Your task to perform on an android device: Open Reddit.com Image 0: 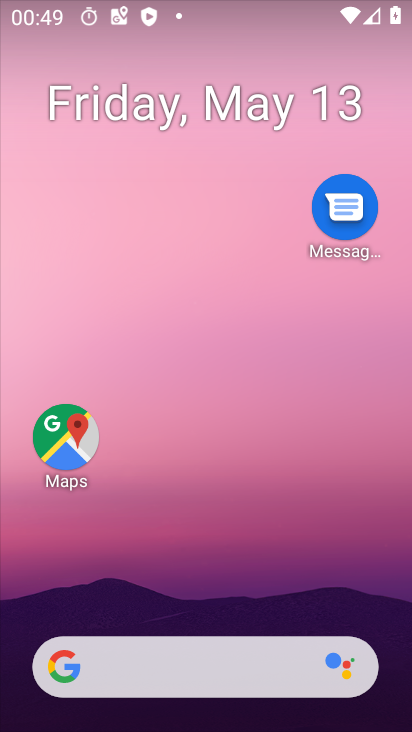
Step 0: drag from (266, 515) to (290, 13)
Your task to perform on an android device: Open Reddit.com Image 1: 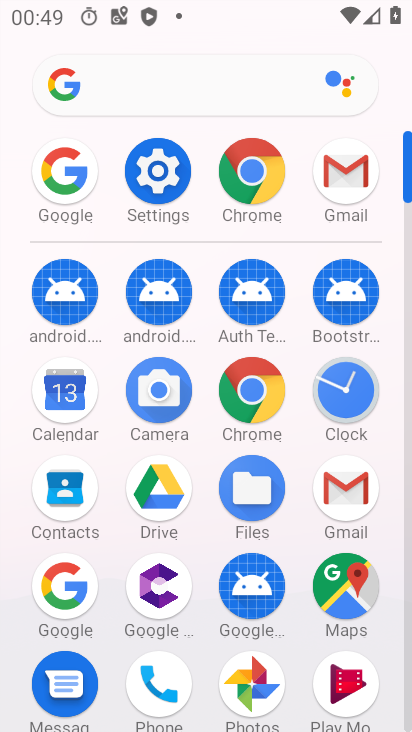
Step 1: click (249, 179)
Your task to perform on an android device: Open Reddit.com Image 2: 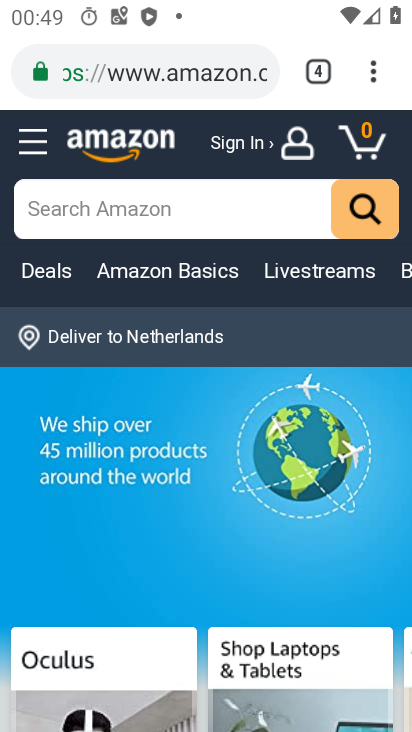
Step 2: click (166, 71)
Your task to perform on an android device: Open Reddit.com Image 3: 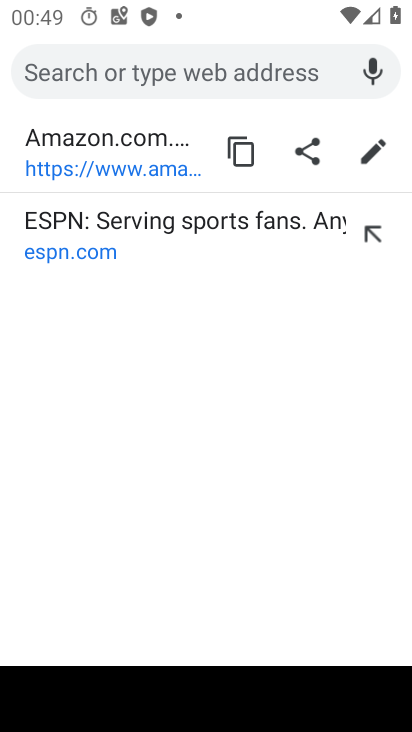
Step 3: type "Reddit.com"
Your task to perform on an android device: Open Reddit.com Image 4: 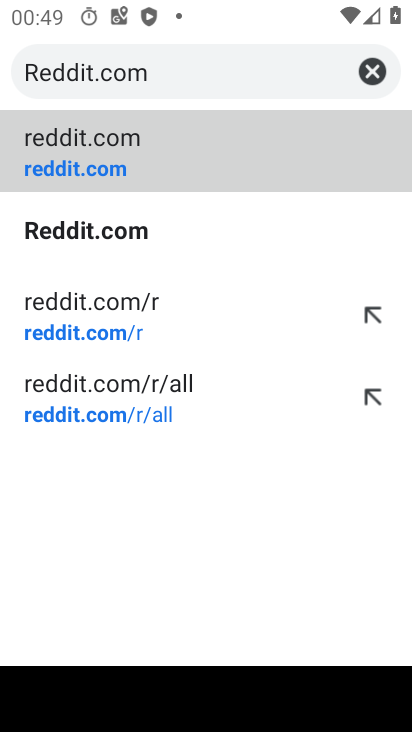
Step 4: click (32, 158)
Your task to perform on an android device: Open Reddit.com Image 5: 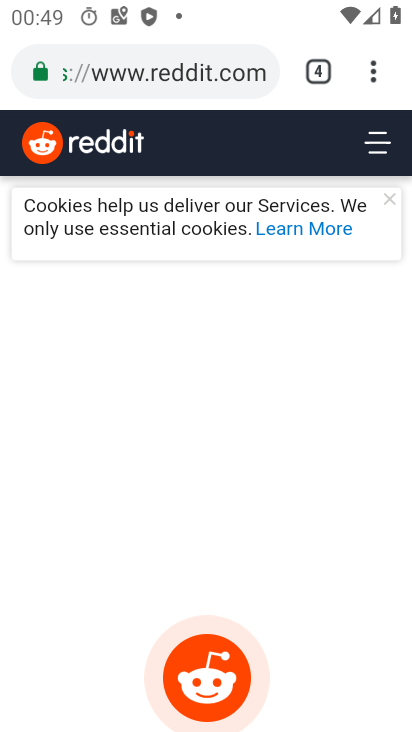
Step 5: task complete